Your task to perform on an android device: Open calendar and show me the third week of next month Image 0: 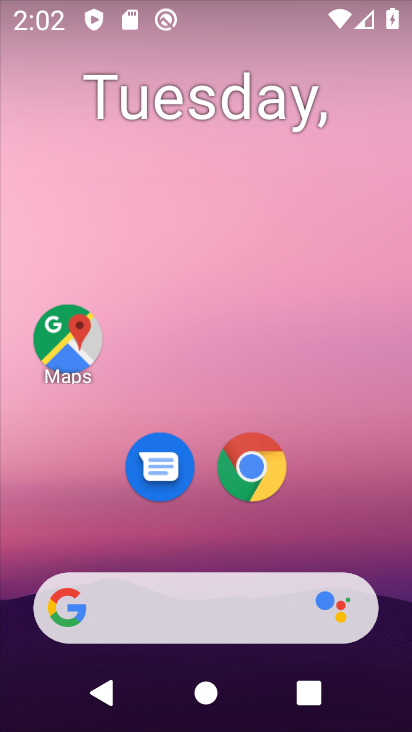
Step 0: drag from (387, 535) to (346, 103)
Your task to perform on an android device: Open calendar and show me the third week of next month Image 1: 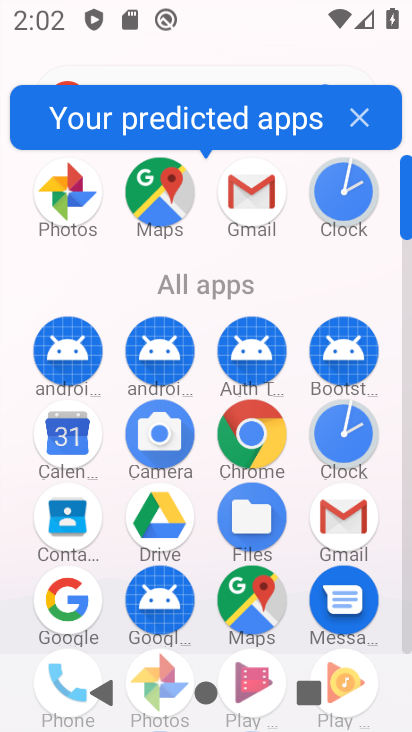
Step 1: click (67, 445)
Your task to perform on an android device: Open calendar and show me the third week of next month Image 2: 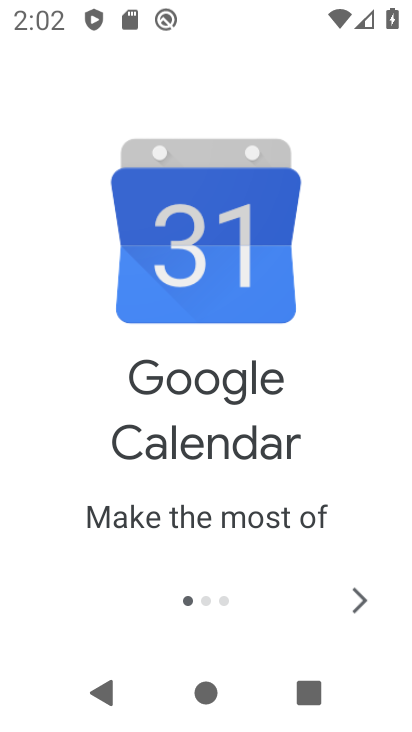
Step 2: click (346, 598)
Your task to perform on an android device: Open calendar and show me the third week of next month Image 3: 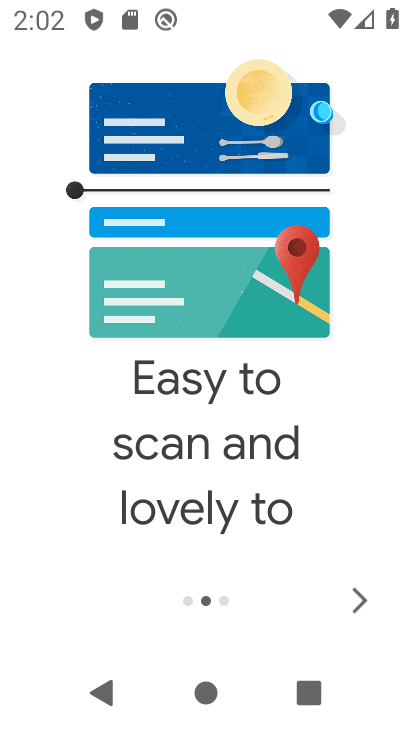
Step 3: click (351, 600)
Your task to perform on an android device: Open calendar and show me the third week of next month Image 4: 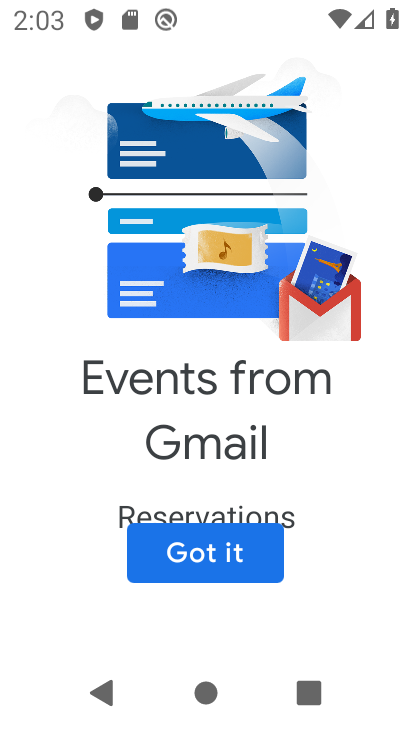
Step 4: click (251, 560)
Your task to perform on an android device: Open calendar and show me the third week of next month Image 5: 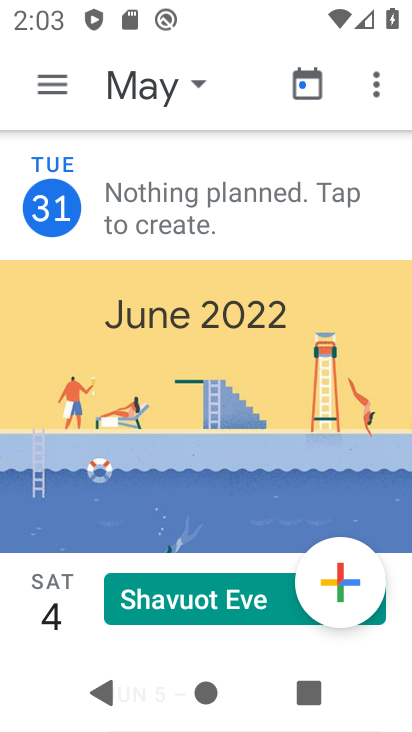
Step 5: click (196, 84)
Your task to perform on an android device: Open calendar and show me the third week of next month Image 6: 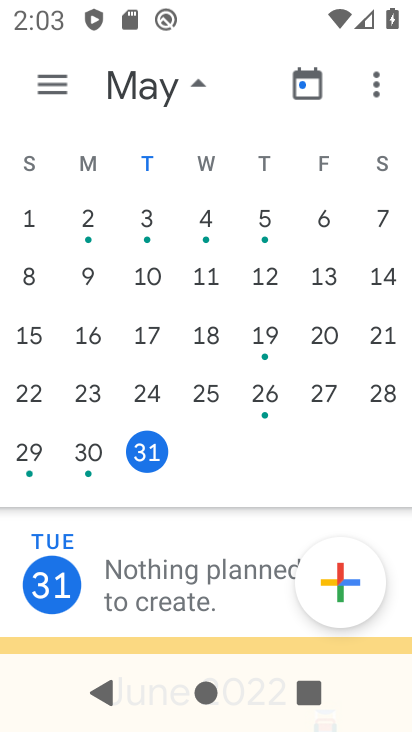
Step 6: drag from (384, 183) to (28, 170)
Your task to perform on an android device: Open calendar and show me the third week of next month Image 7: 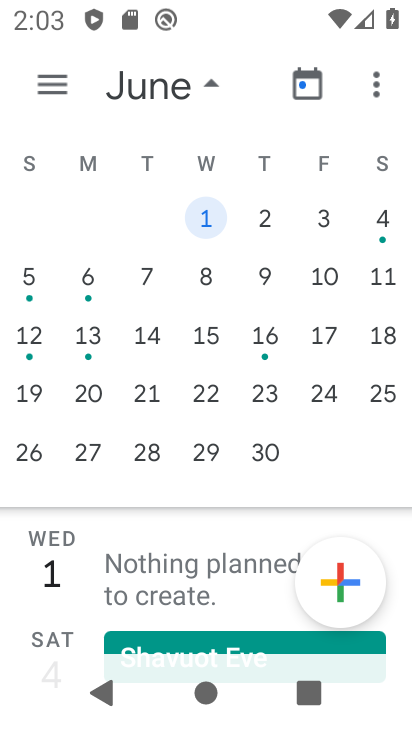
Step 7: click (93, 340)
Your task to perform on an android device: Open calendar and show me the third week of next month Image 8: 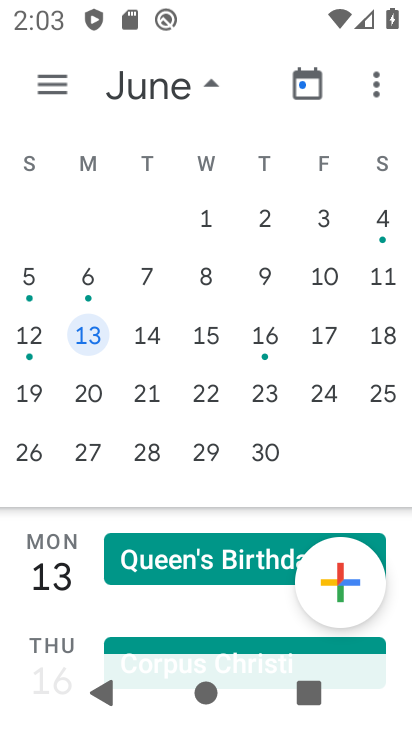
Step 8: task complete